Your task to perform on an android device: open a bookmark in the chrome app Image 0: 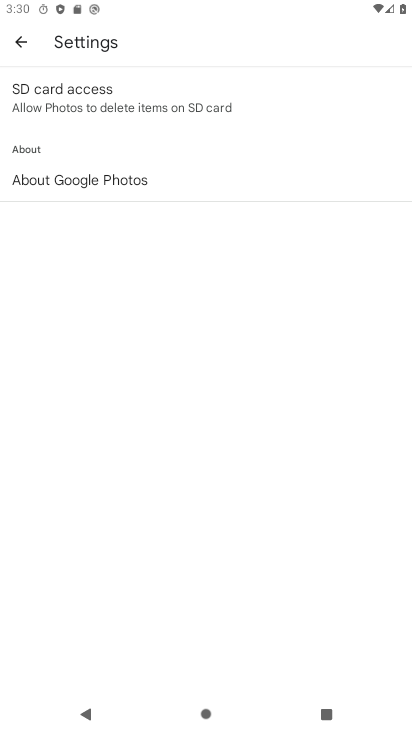
Step 0: click (16, 49)
Your task to perform on an android device: open a bookmark in the chrome app Image 1: 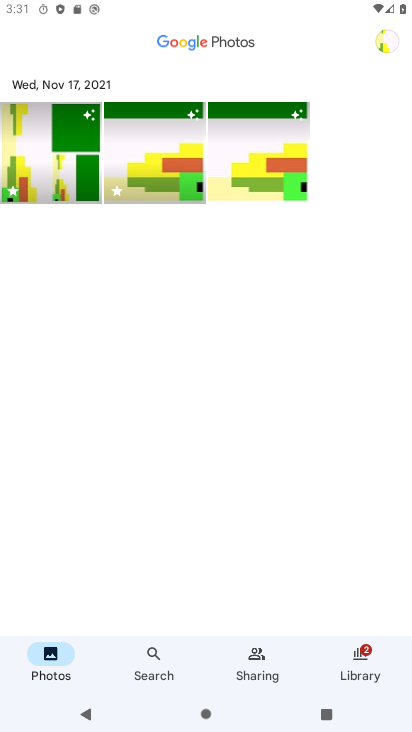
Step 1: press home button
Your task to perform on an android device: open a bookmark in the chrome app Image 2: 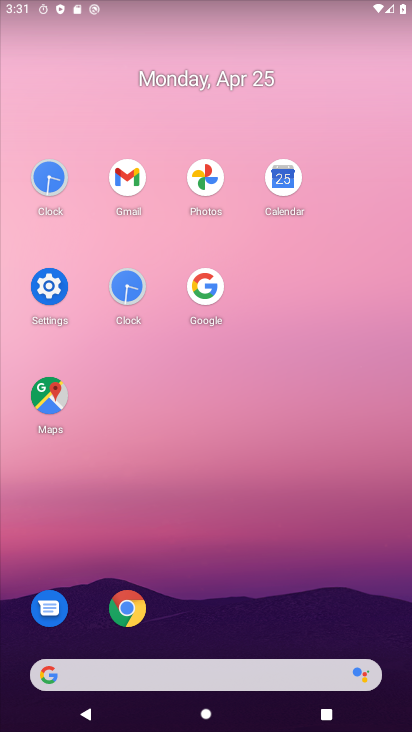
Step 2: click (134, 611)
Your task to perform on an android device: open a bookmark in the chrome app Image 3: 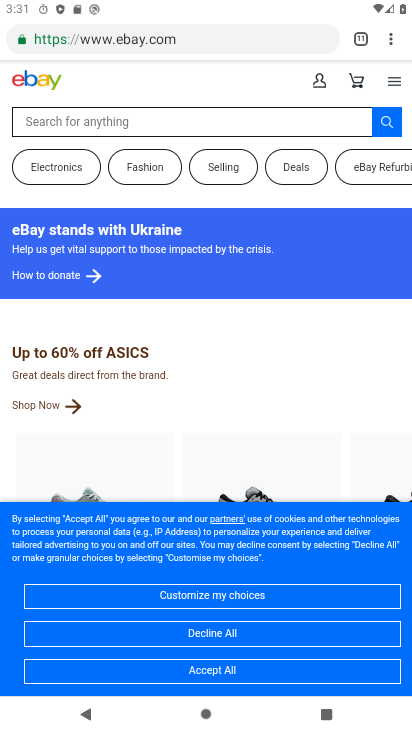
Step 3: click (391, 35)
Your task to perform on an android device: open a bookmark in the chrome app Image 4: 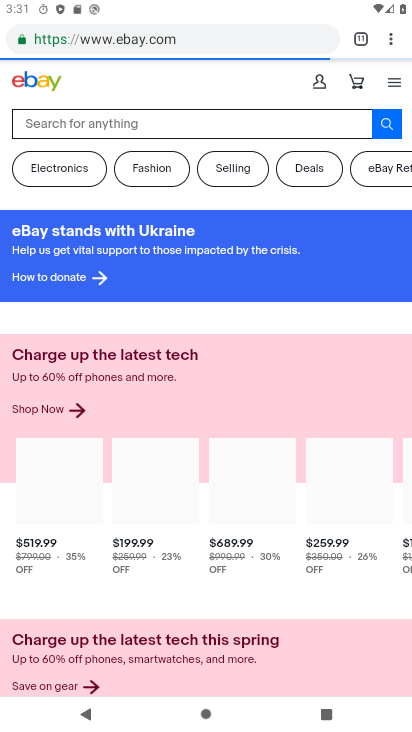
Step 4: click (391, 34)
Your task to perform on an android device: open a bookmark in the chrome app Image 5: 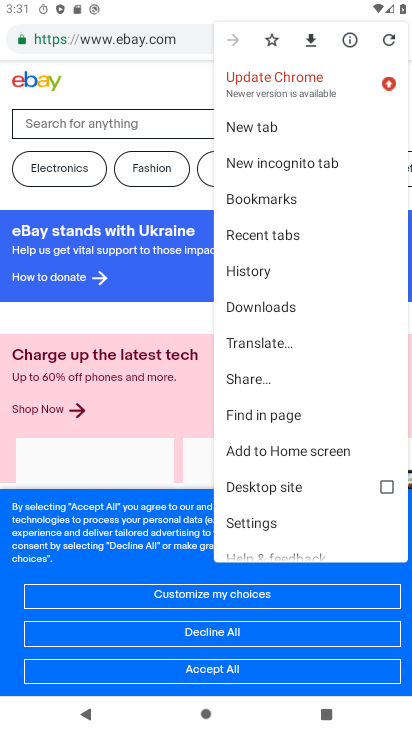
Step 5: click (275, 209)
Your task to perform on an android device: open a bookmark in the chrome app Image 6: 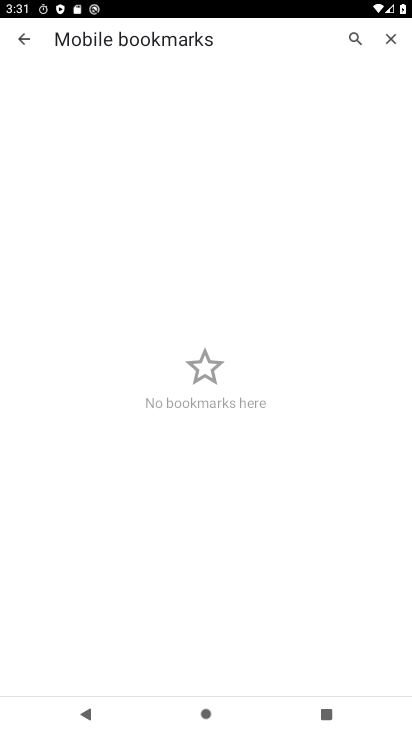
Step 6: task complete